Your task to perform on an android device: set the timer Image 0: 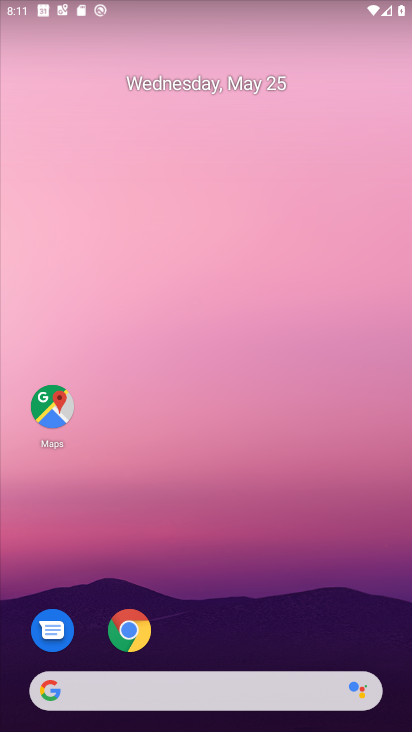
Step 0: drag from (280, 585) to (312, 167)
Your task to perform on an android device: set the timer Image 1: 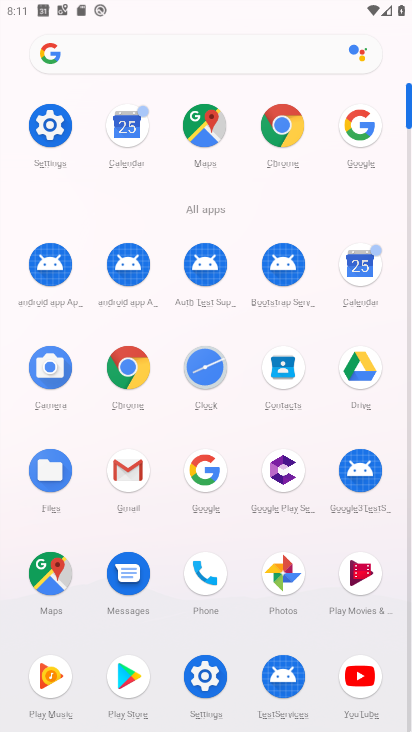
Step 1: click (203, 374)
Your task to perform on an android device: set the timer Image 2: 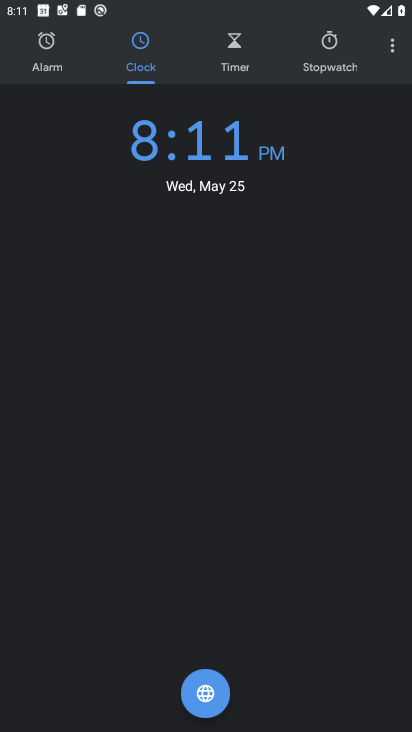
Step 2: click (235, 38)
Your task to perform on an android device: set the timer Image 3: 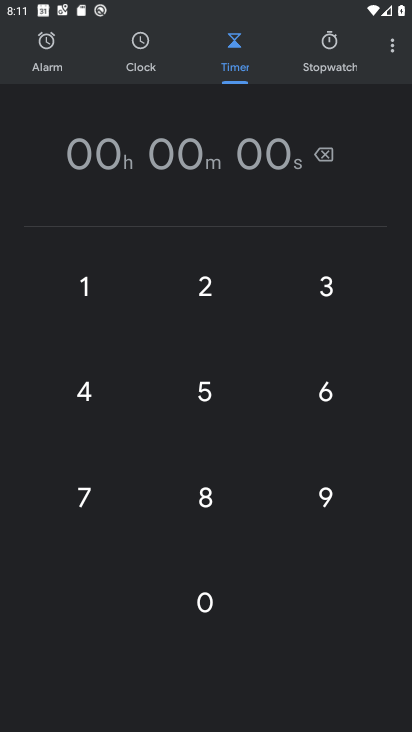
Step 3: click (227, 291)
Your task to perform on an android device: set the timer Image 4: 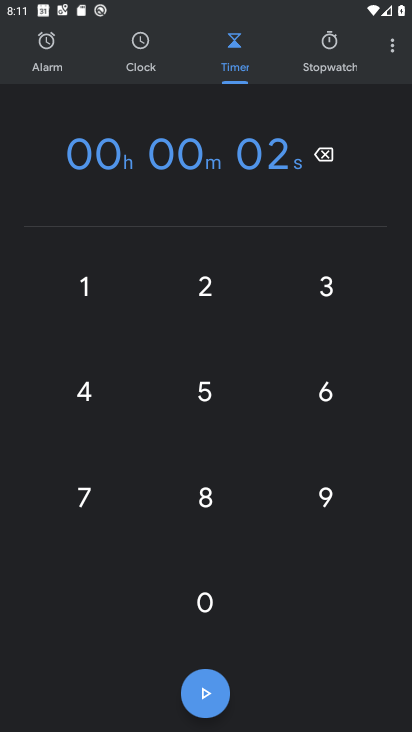
Step 4: click (227, 291)
Your task to perform on an android device: set the timer Image 5: 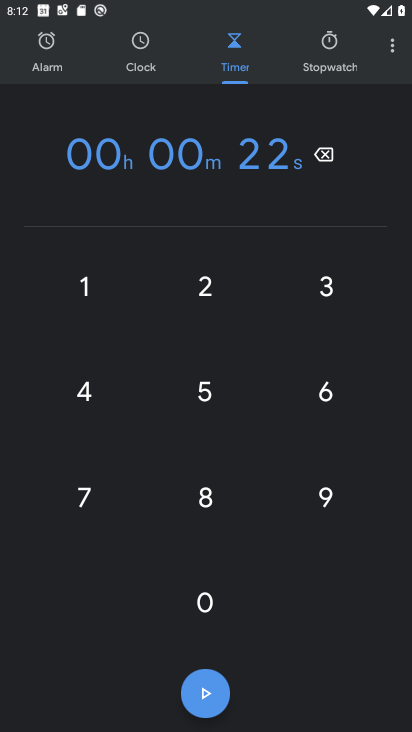
Step 5: task complete